Your task to perform on an android device: Do I have any events tomorrow? Image 0: 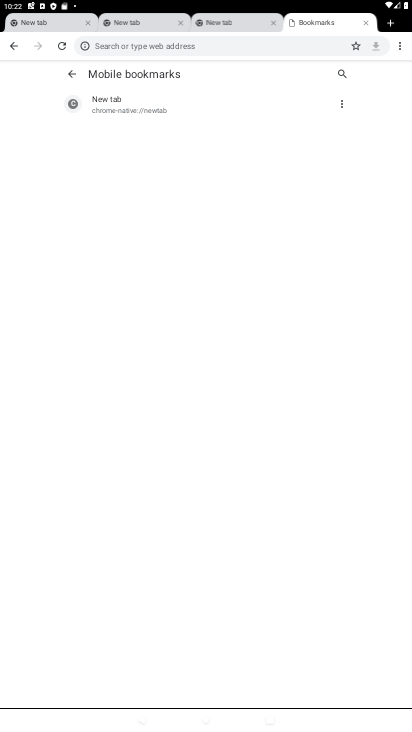
Step 0: press home button
Your task to perform on an android device: Do I have any events tomorrow? Image 1: 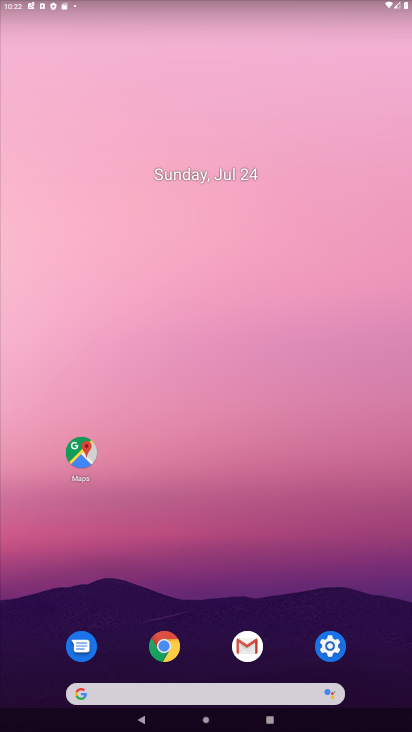
Step 1: drag from (250, 626) to (200, 117)
Your task to perform on an android device: Do I have any events tomorrow? Image 2: 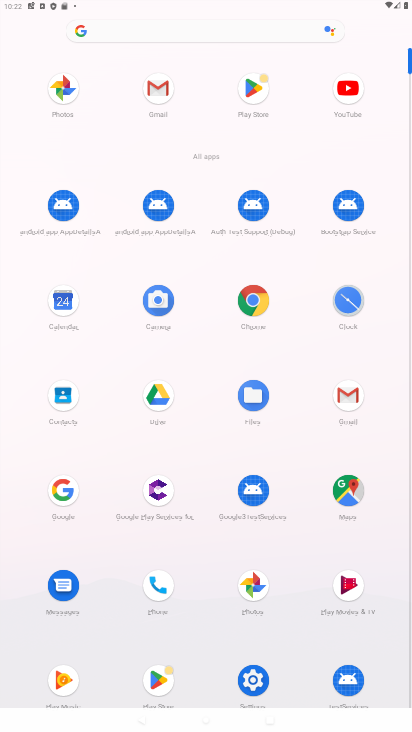
Step 2: click (71, 304)
Your task to perform on an android device: Do I have any events tomorrow? Image 3: 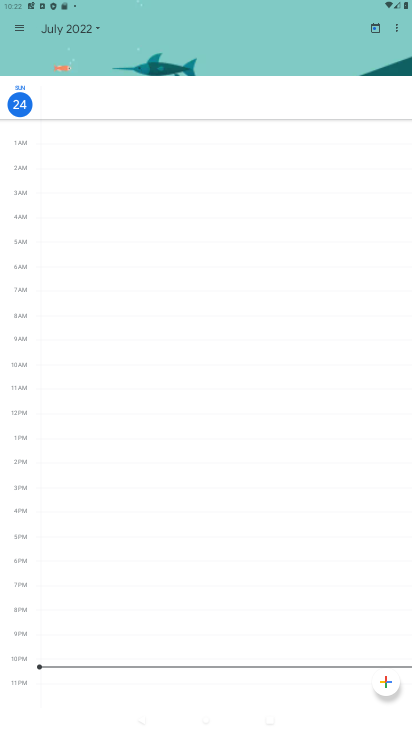
Step 3: click (20, 20)
Your task to perform on an android device: Do I have any events tomorrow? Image 4: 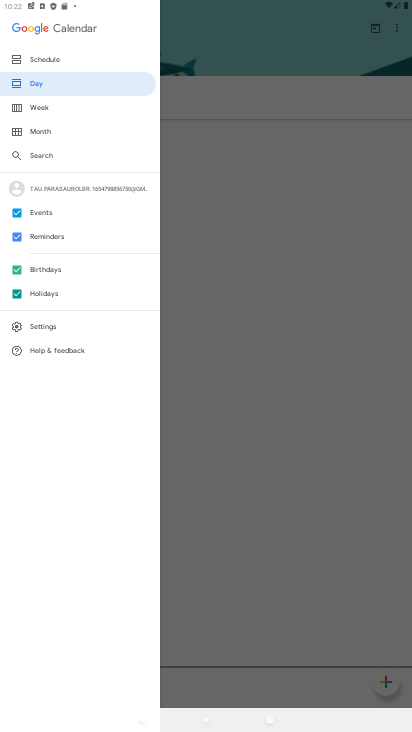
Step 4: click (43, 133)
Your task to perform on an android device: Do I have any events tomorrow? Image 5: 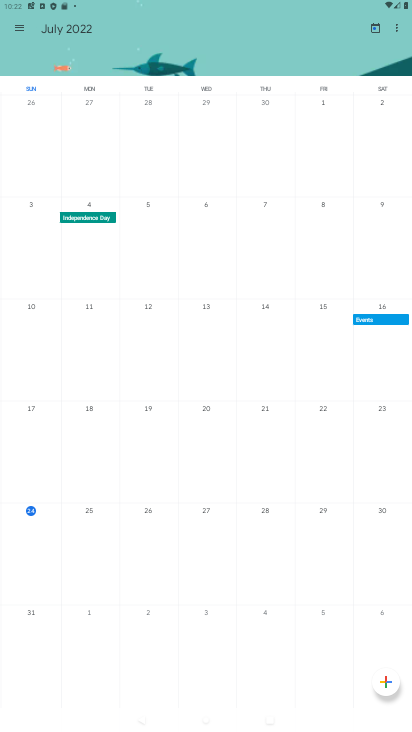
Step 5: click (85, 504)
Your task to perform on an android device: Do I have any events tomorrow? Image 6: 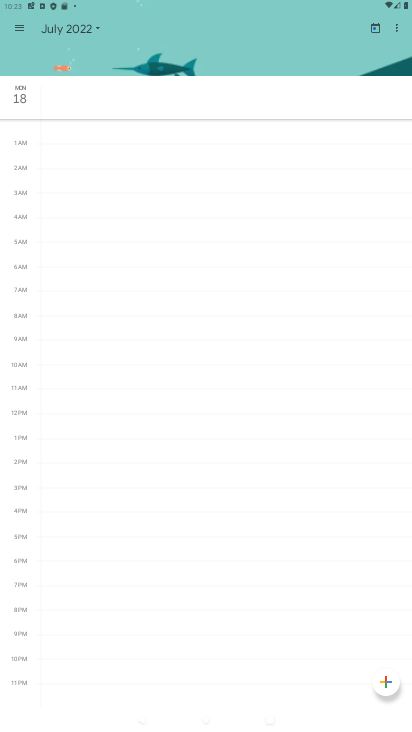
Step 6: task complete